Your task to perform on an android device: change keyboard looks Image 0: 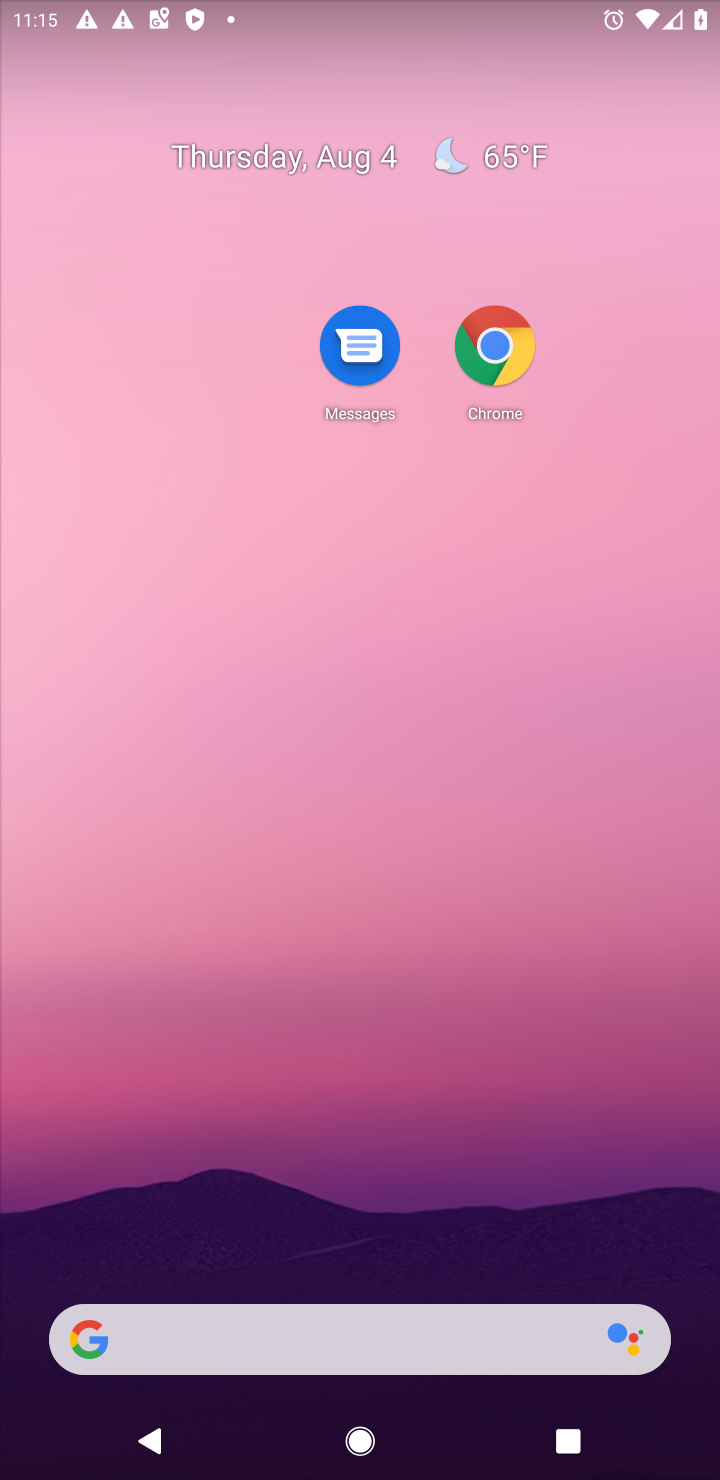
Step 0: drag from (288, 1106) to (278, 0)
Your task to perform on an android device: change keyboard looks Image 1: 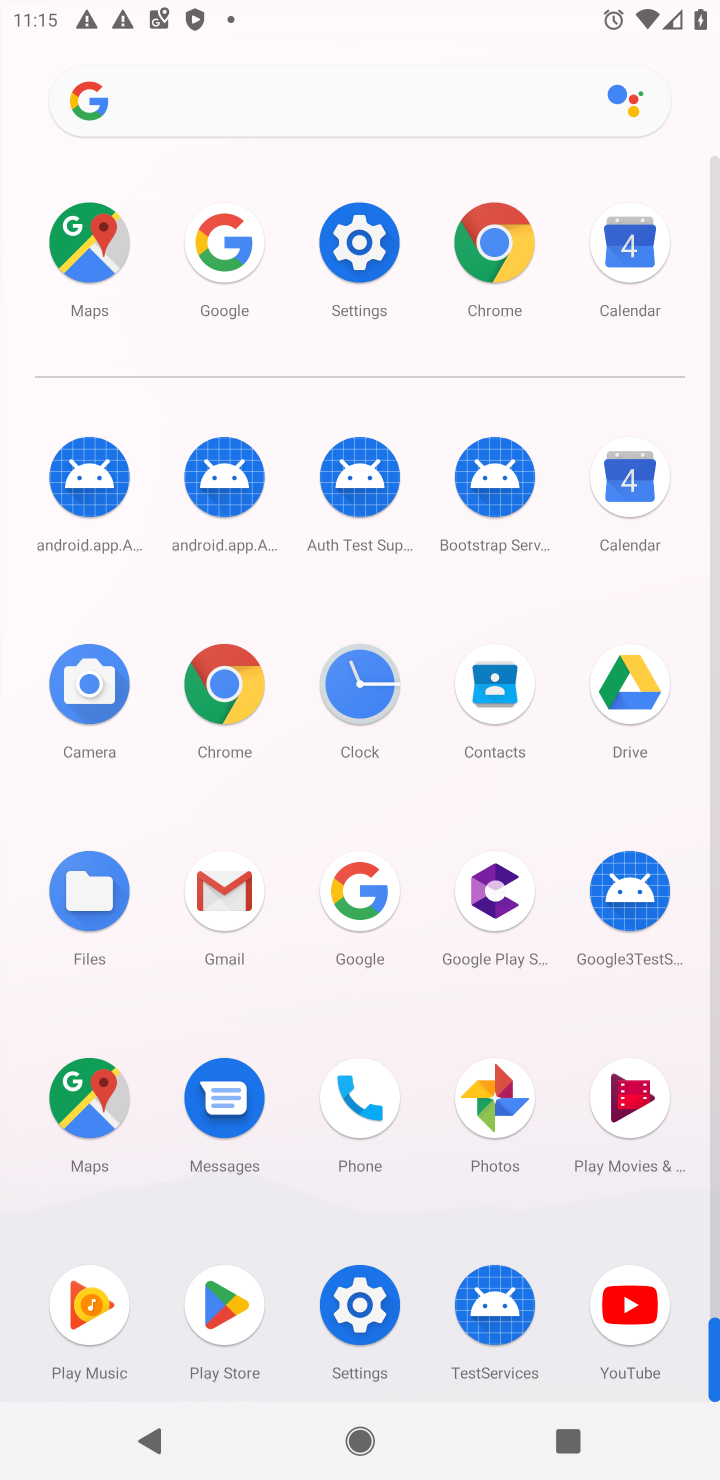
Step 1: click (383, 257)
Your task to perform on an android device: change keyboard looks Image 2: 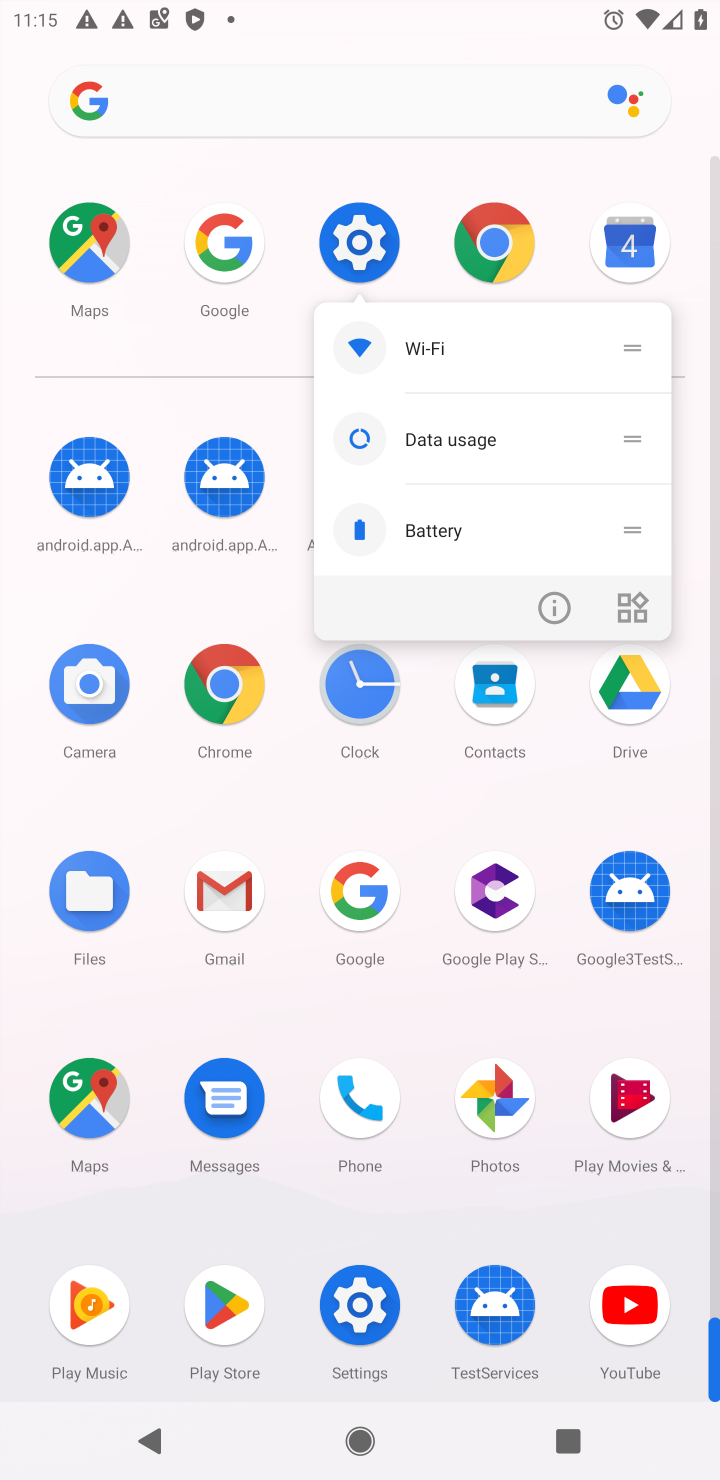
Step 2: click (356, 246)
Your task to perform on an android device: change keyboard looks Image 3: 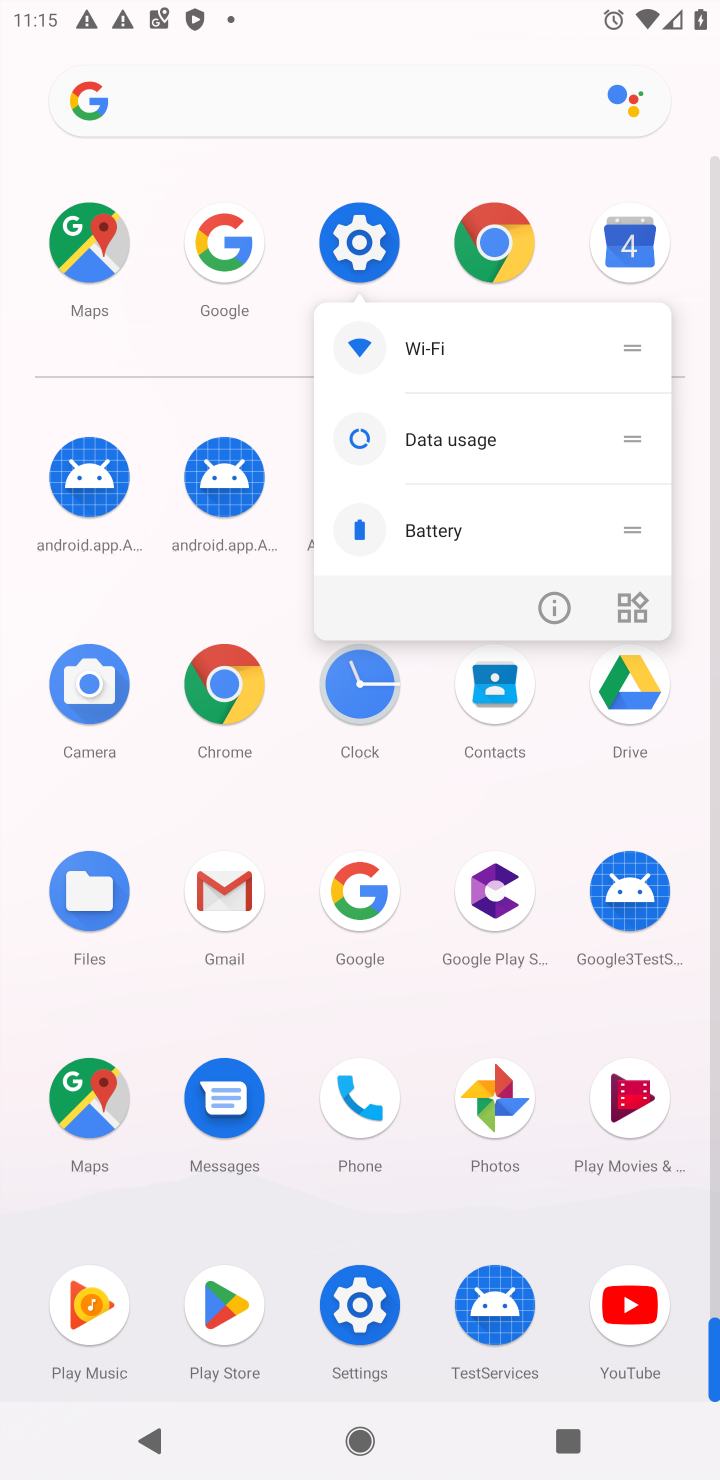
Step 3: click (355, 246)
Your task to perform on an android device: change keyboard looks Image 4: 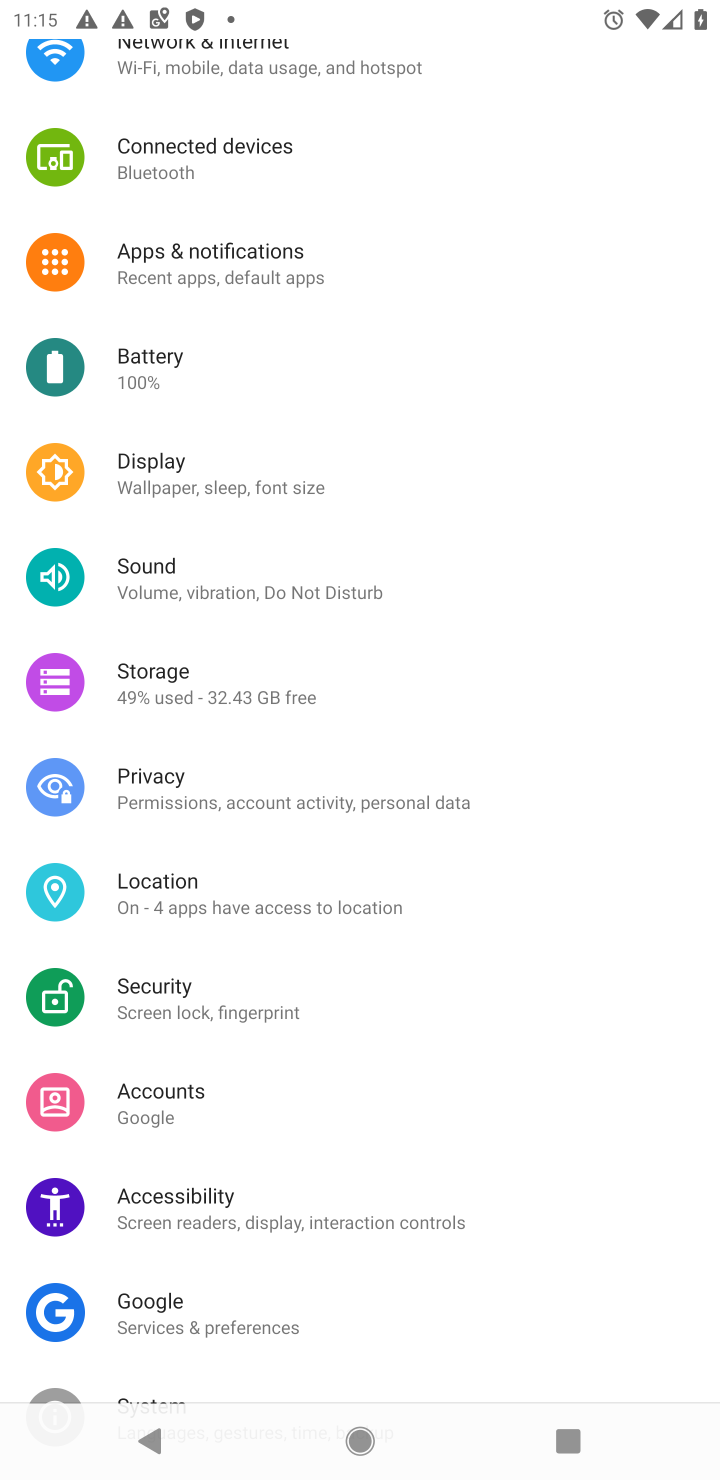
Step 4: drag from (313, 1269) to (266, 418)
Your task to perform on an android device: change keyboard looks Image 5: 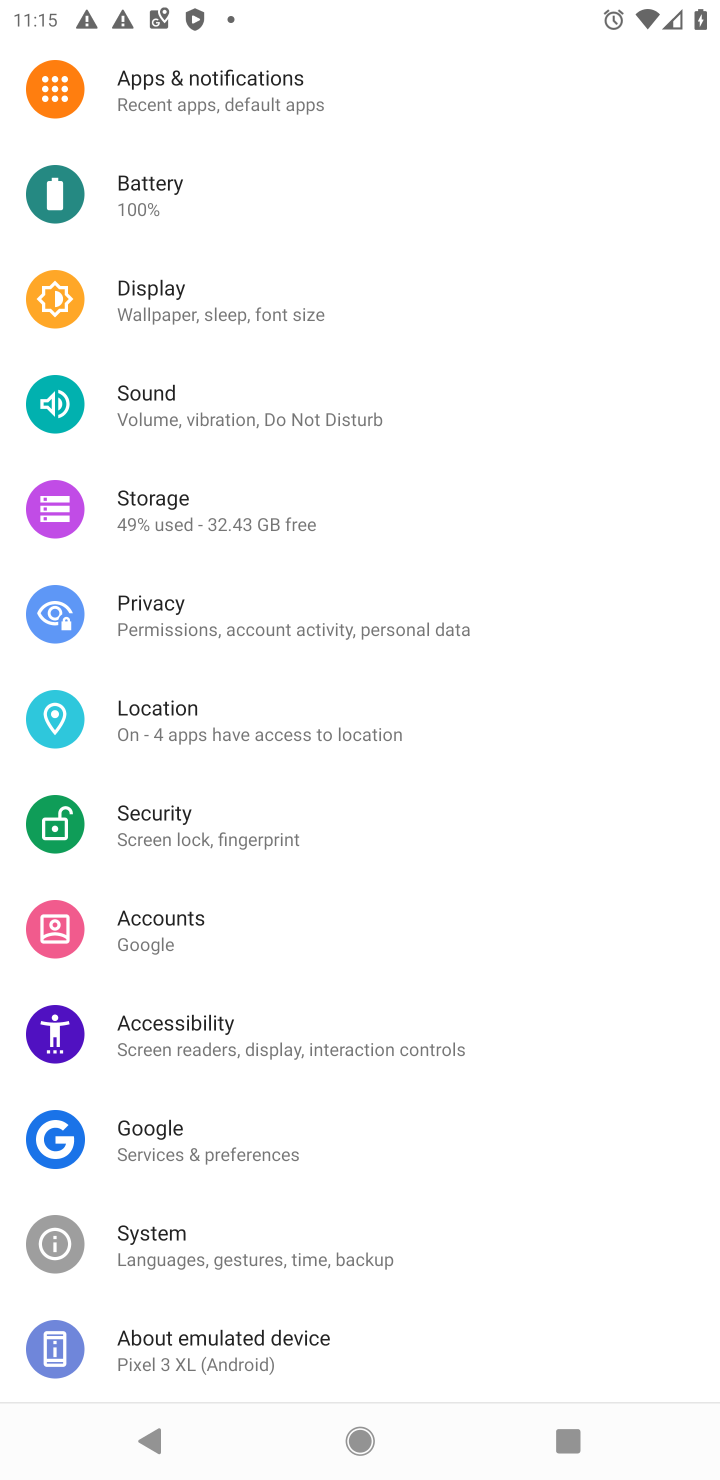
Step 5: click (241, 1263)
Your task to perform on an android device: change keyboard looks Image 6: 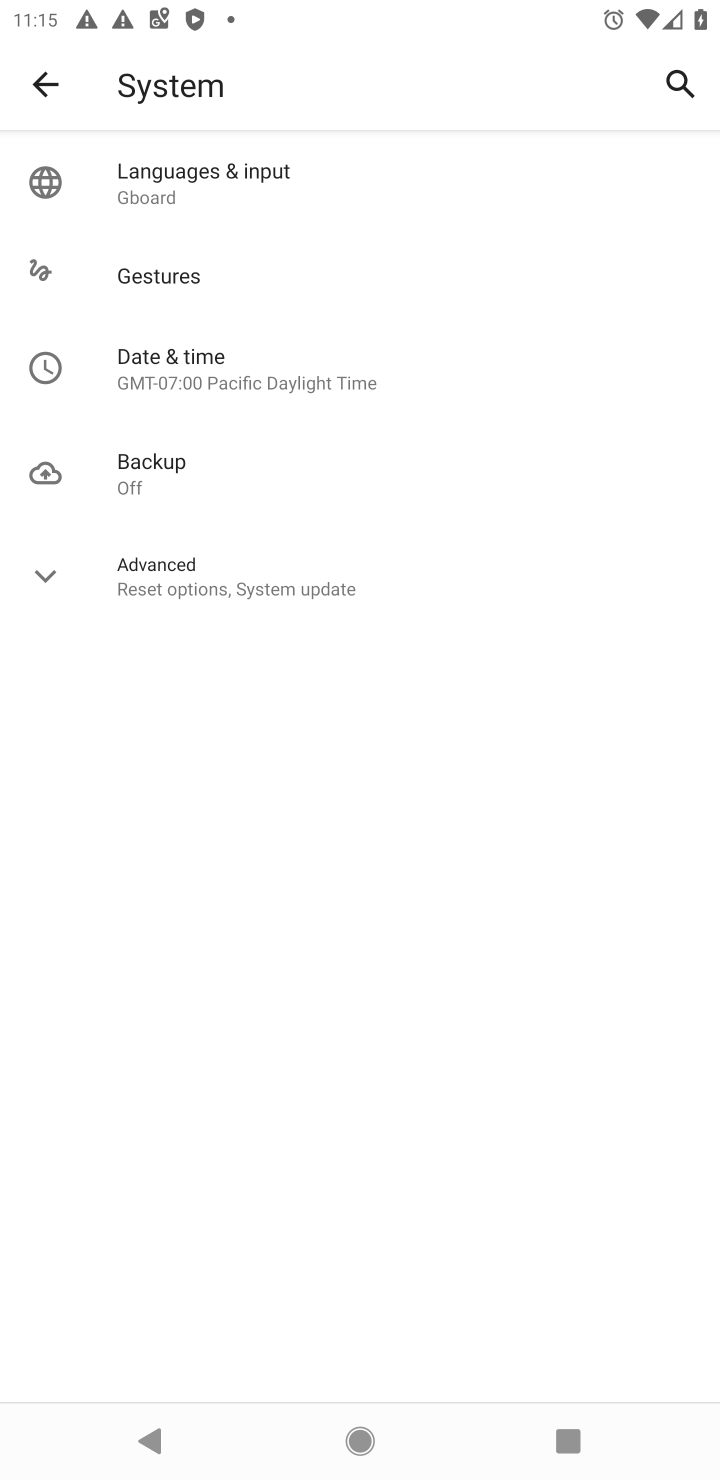
Step 6: click (179, 195)
Your task to perform on an android device: change keyboard looks Image 7: 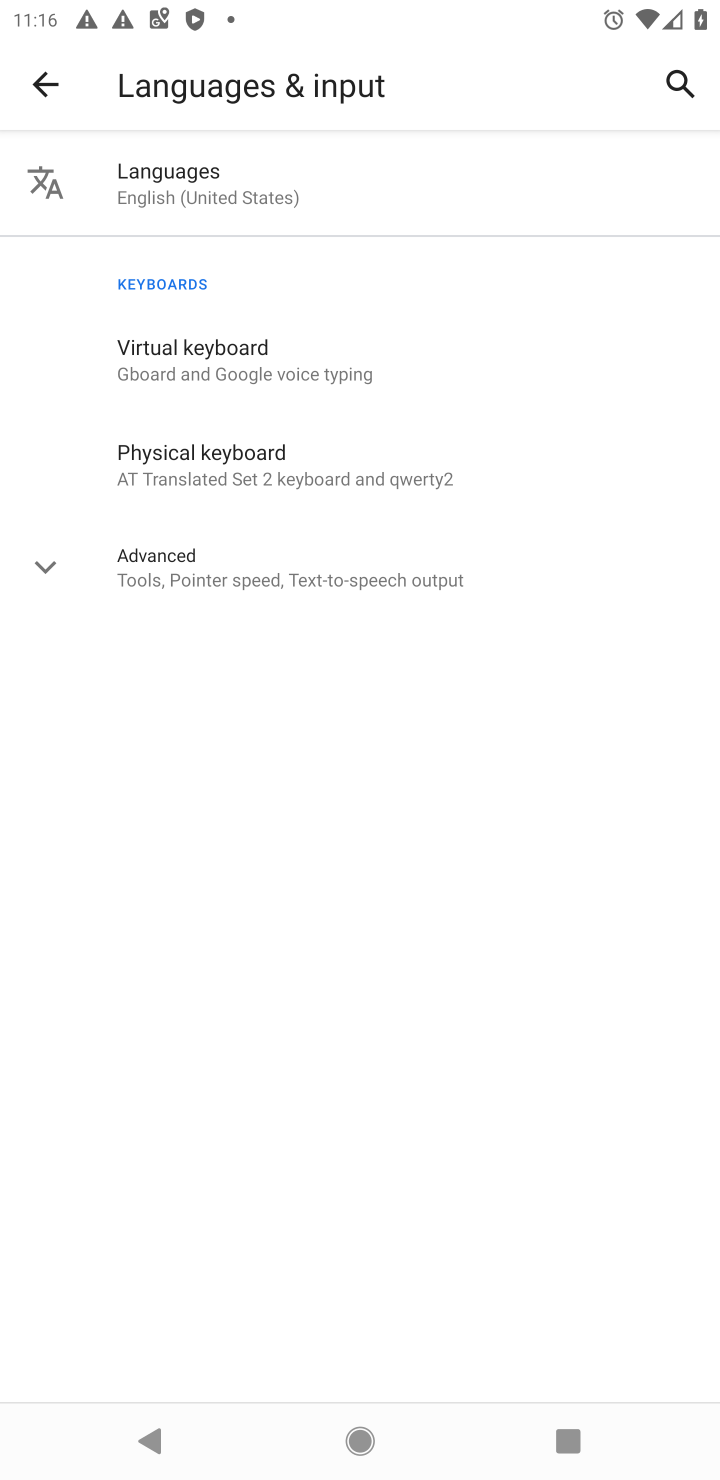
Step 7: click (196, 366)
Your task to perform on an android device: change keyboard looks Image 8: 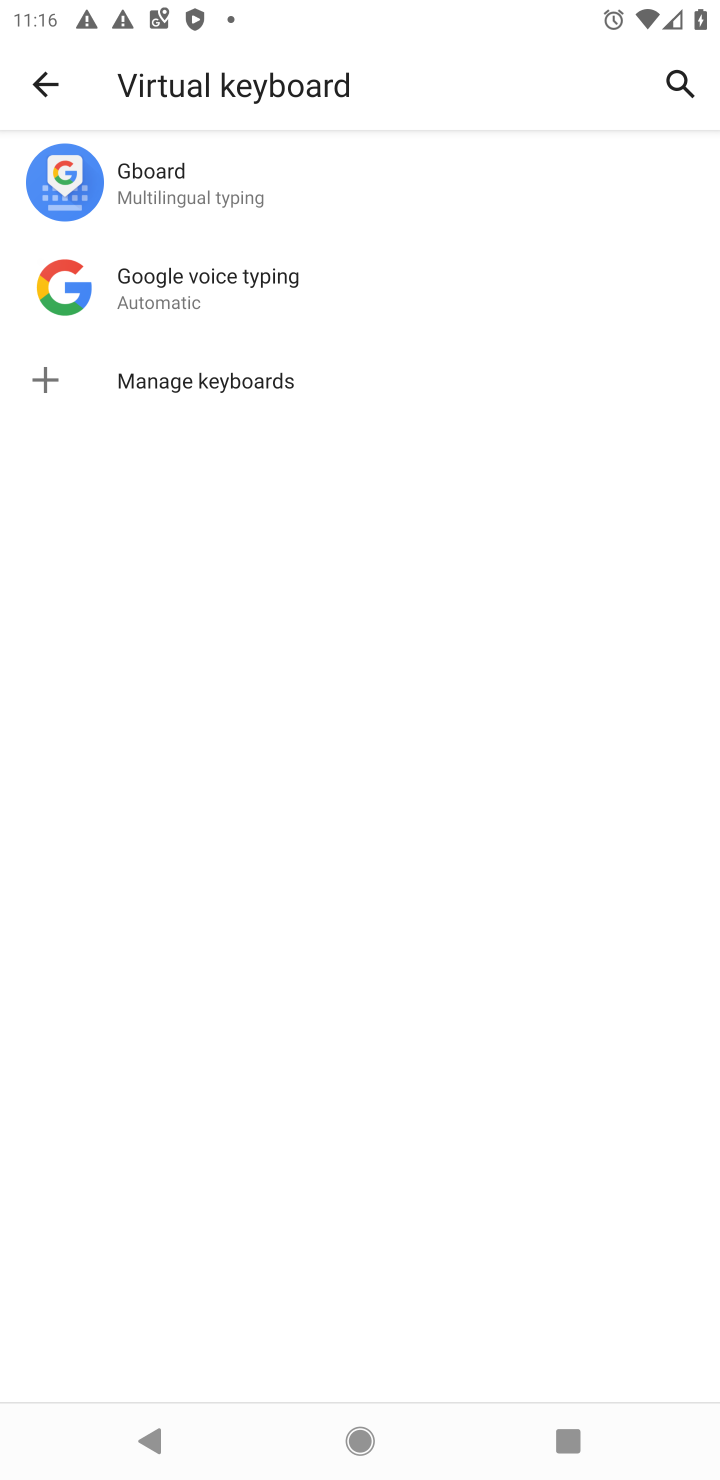
Step 8: click (184, 182)
Your task to perform on an android device: change keyboard looks Image 9: 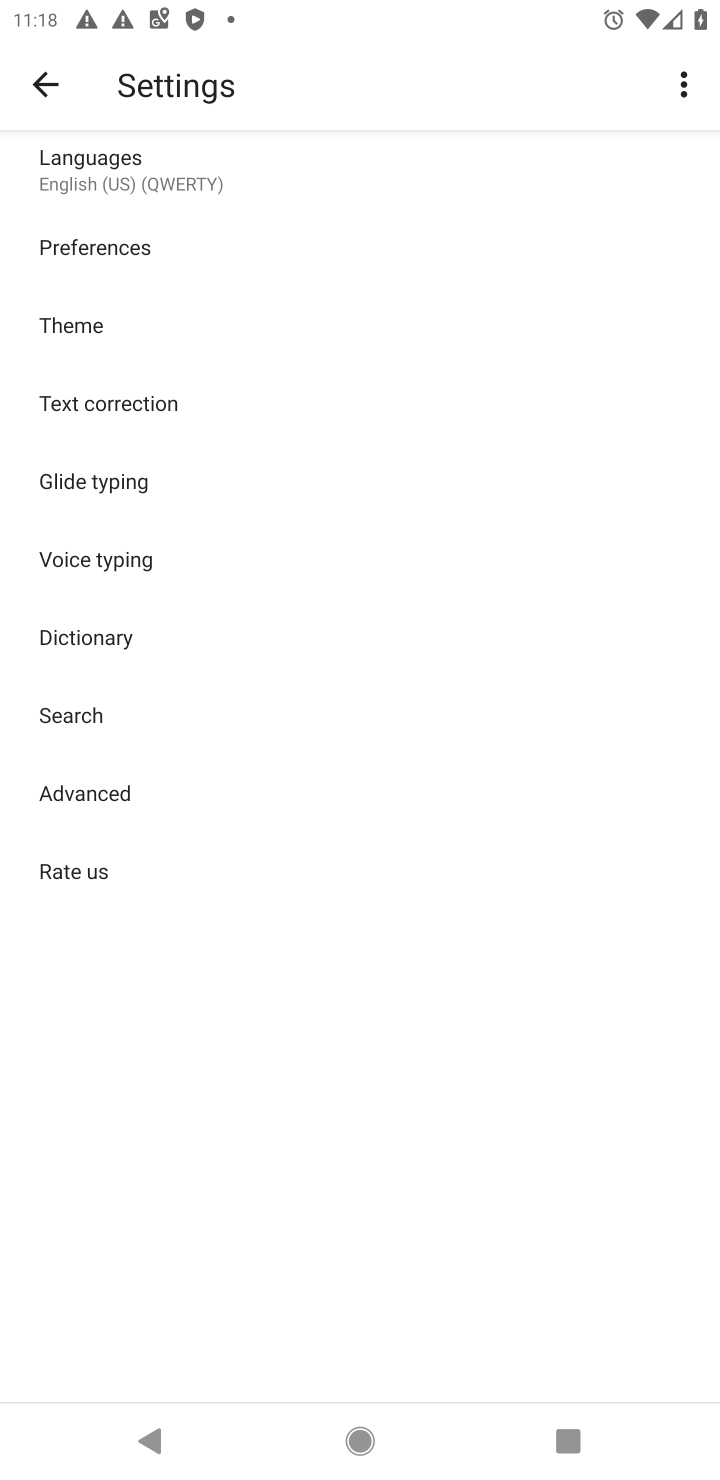
Step 9: click (103, 337)
Your task to perform on an android device: change keyboard looks Image 10: 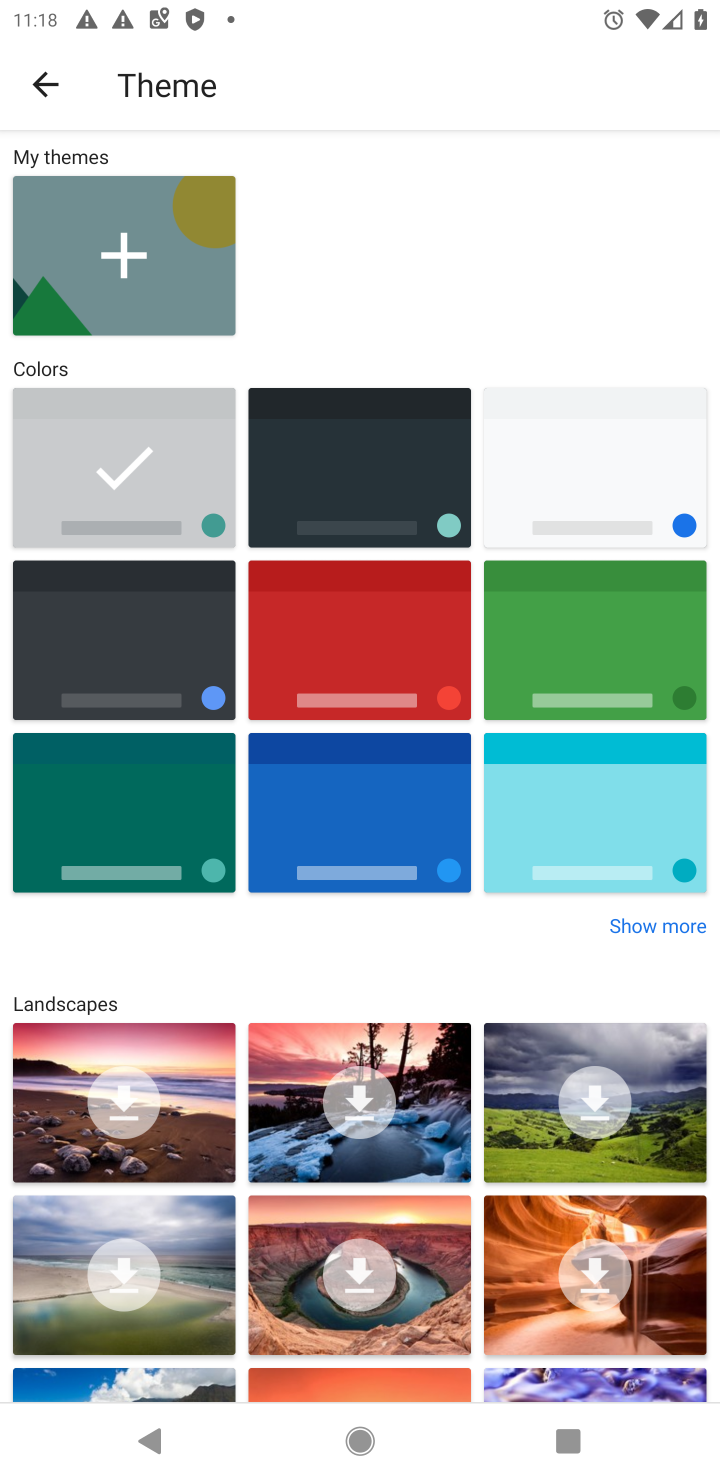
Step 10: click (337, 464)
Your task to perform on an android device: change keyboard looks Image 11: 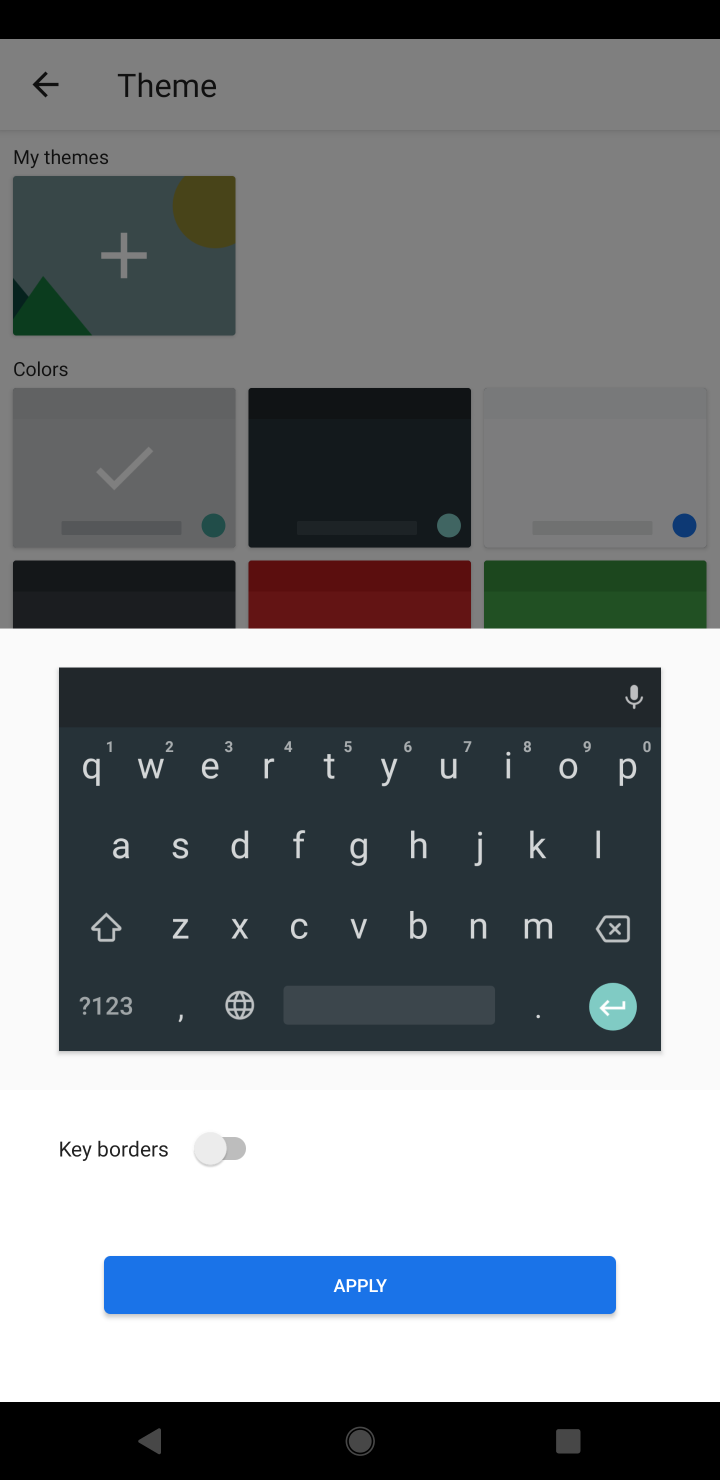
Step 11: click (359, 1284)
Your task to perform on an android device: change keyboard looks Image 12: 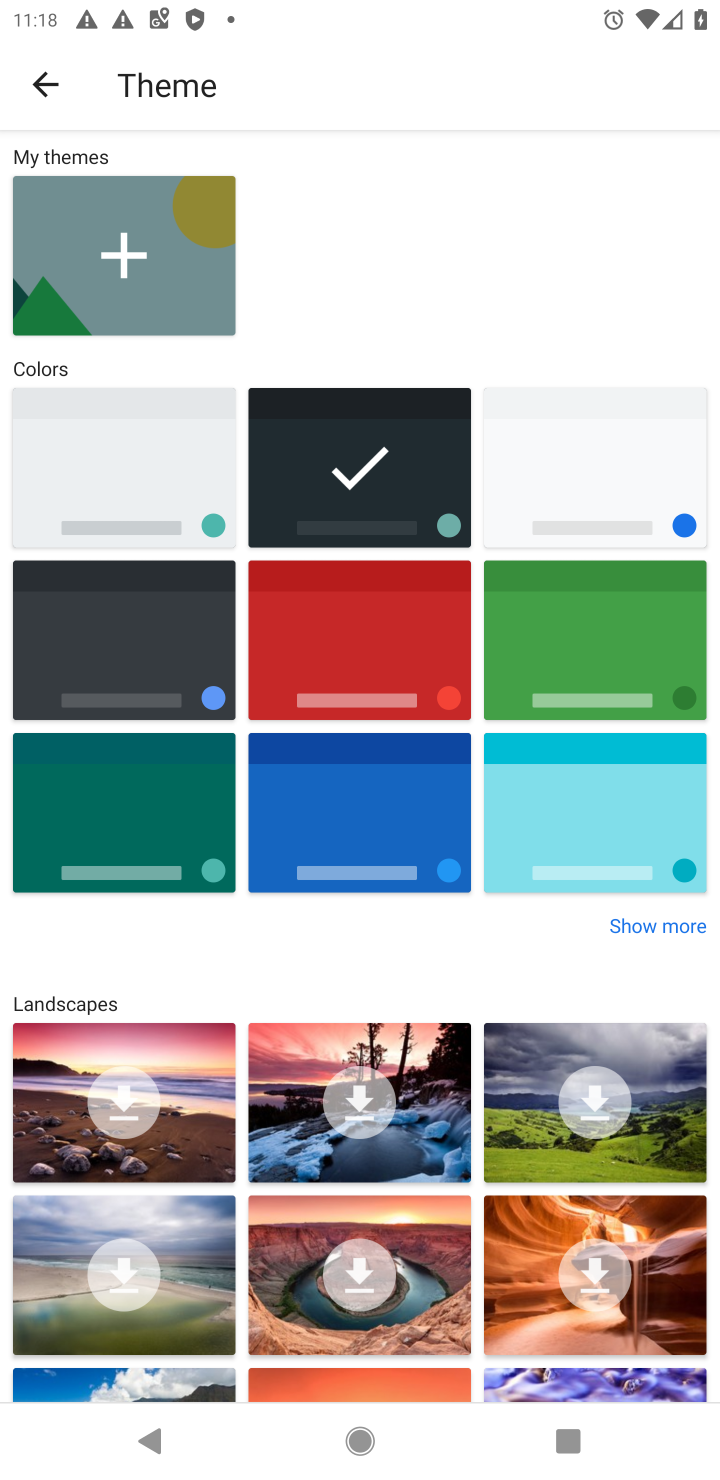
Step 12: task complete